Your task to perform on an android device: turn off improve location accuracy Image 0: 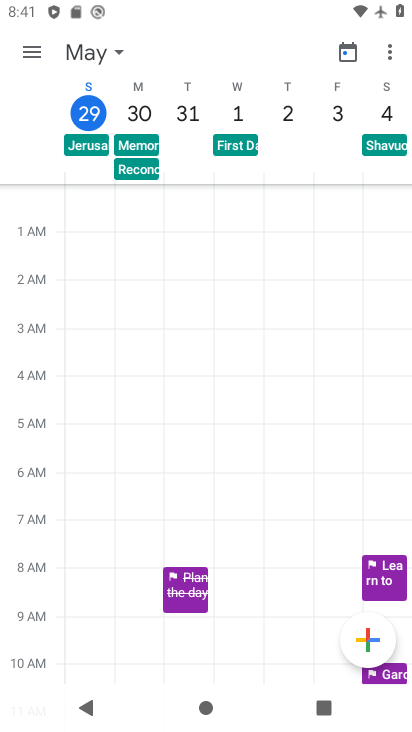
Step 0: press home button
Your task to perform on an android device: turn off improve location accuracy Image 1: 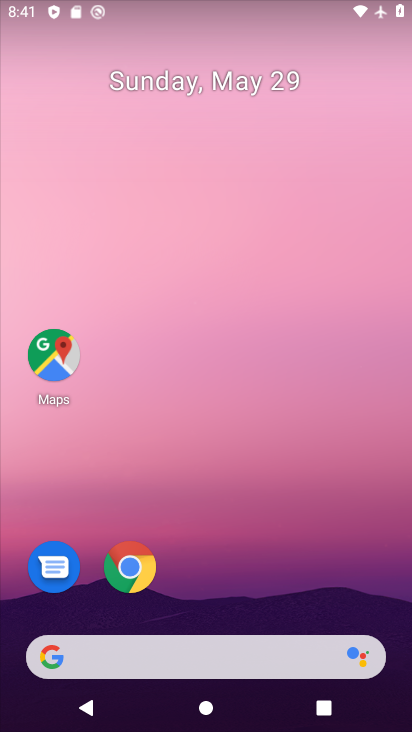
Step 1: drag from (347, 597) to (282, 46)
Your task to perform on an android device: turn off improve location accuracy Image 2: 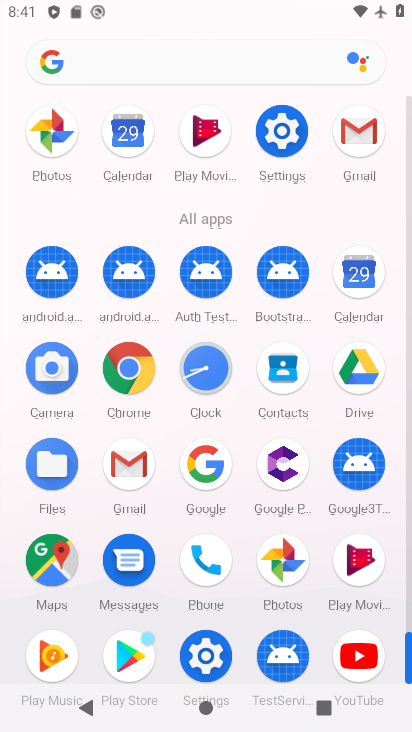
Step 2: click (408, 620)
Your task to perform on an android device: turn off improve location accuracy Image 3: 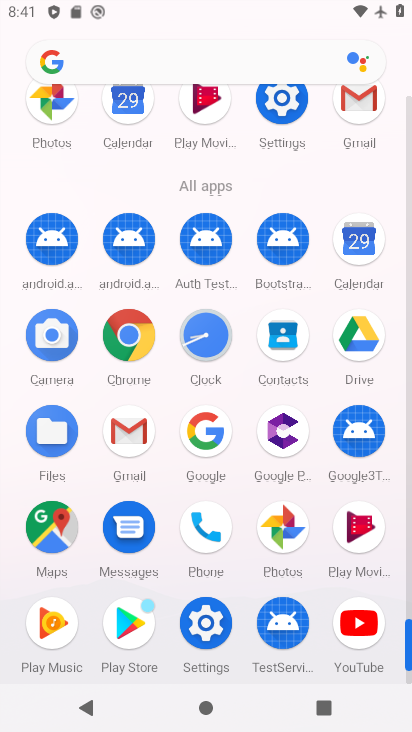
Step 3: click (205, 623)
Your task to perform on an android device: turn off improve location accuracy Image 4: 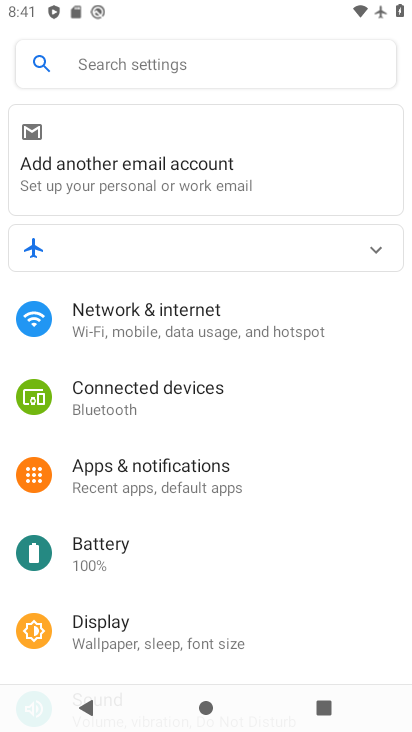
Step 4: drag from (283, 596) to (256, 204)
Your task to perform on an android device: turn off improve location accuracy Image 5: 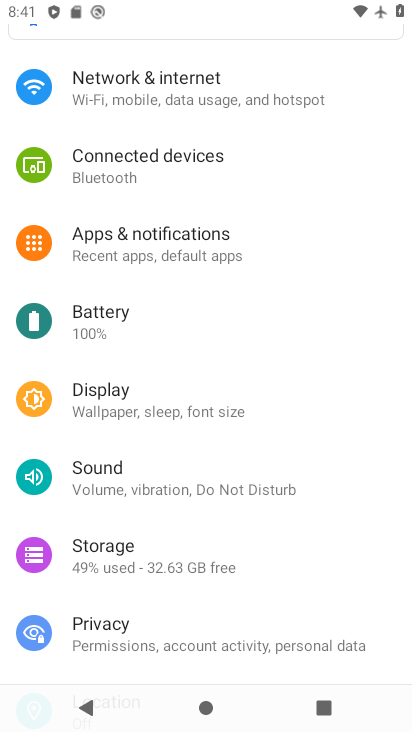
Step 5: drag from (261, 628) to (240, 295)
Your task to perform on an android device: turn off improve location accuracy Image 6: 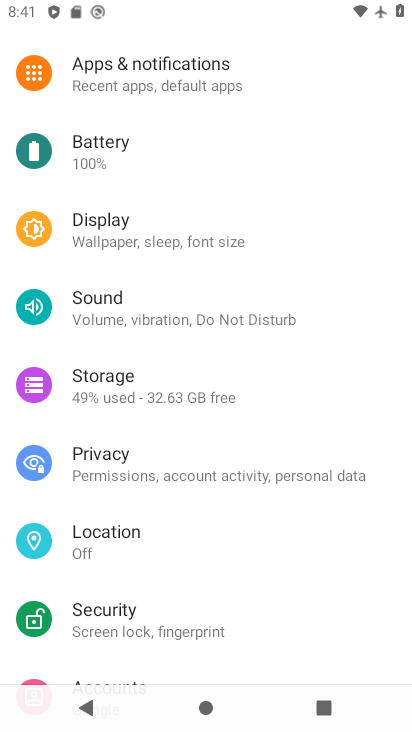
Step 6: click (100, 537)
Your task to perform on an android device: turn off improve location accuracy Image 7: 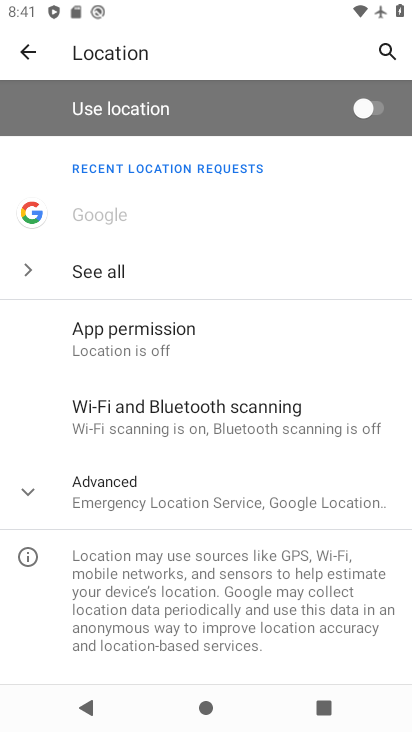
Step 7: click (31, 494)
Your task to perform on an android device: turn off improve location accuracy Image 8: 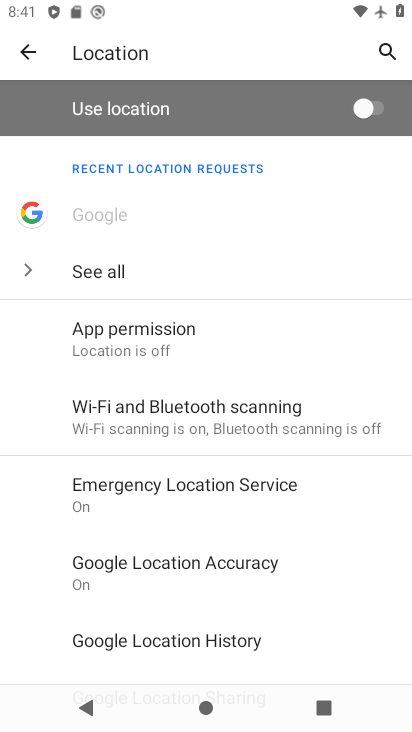
Step 8: click (159, 567)
Your task to perform on an android device: turn off improve location accuracy Image 9: 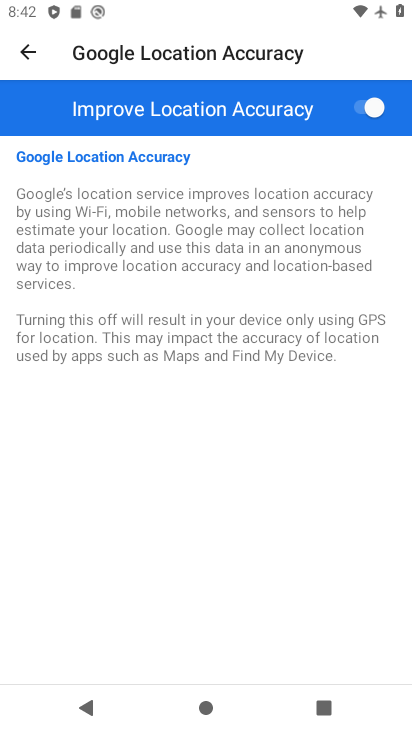
Step 9: click (358, 107)
Your task to perform on an android device: turn off improve location accuracy Image 10: 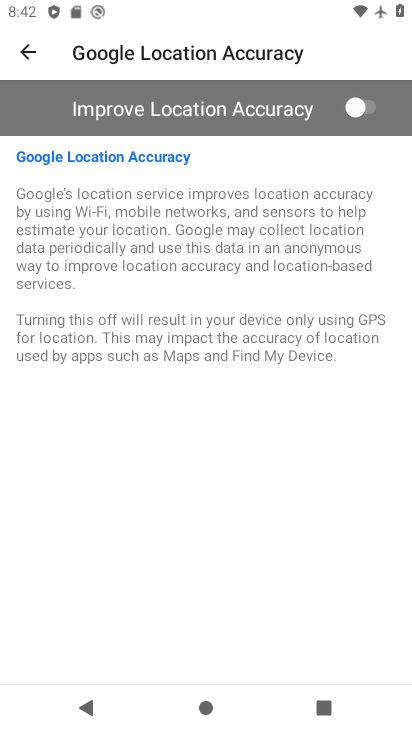
Step 10: task complete